Your task to perform on an android device: turn off data saver in the chrome app Image 0: 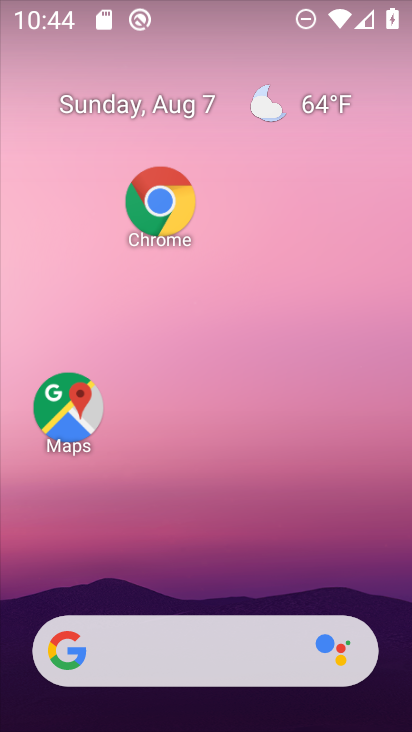
Step 0: drag from (200, 617) to (0, 347)
Your task to perform on an android device: turn off data saver in the chrome app Image 1: 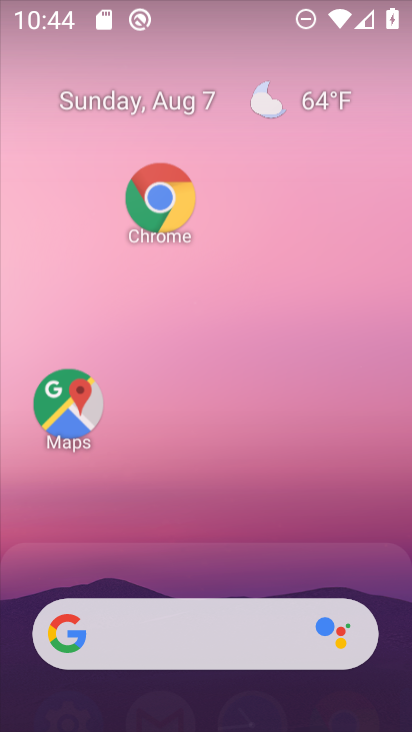
Step 1: click (265, 398)
Your task to perform on an android device: turn off data saver in the chrome app Image 2: 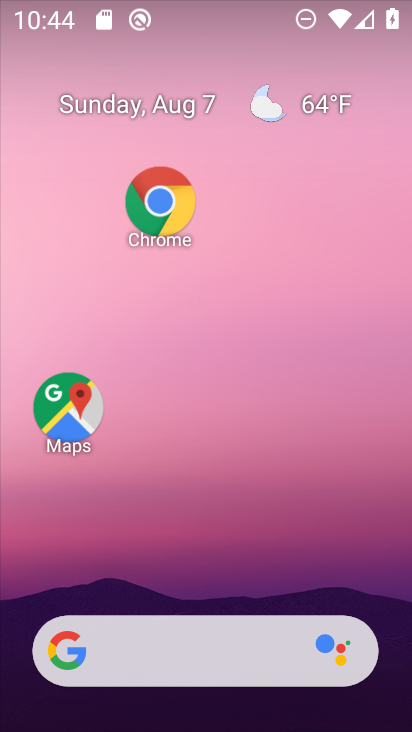
Step 2: drag from (208, 607) to (344, 659)
Your task to perform on an android device: turn off data saver in the chrome app Image 3: 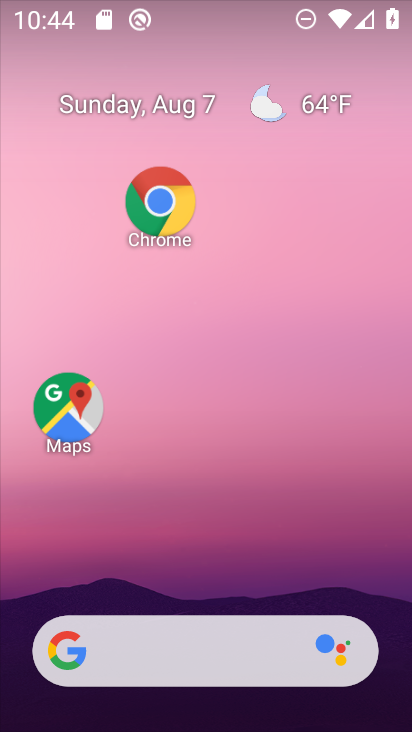
Step 3: drag from (215, 643) to (363, 15)
Your task to perform on an android device: turn off data saver in the chrome app Image 4: 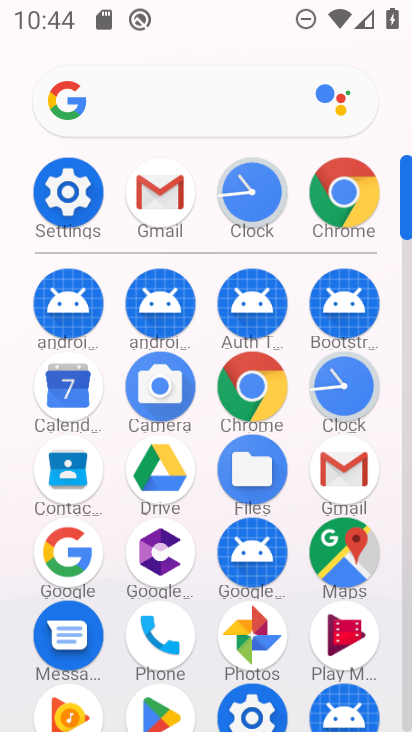
Step 4: click (333, 195)
Your task to perform on an android device: turn off data saver in the chrome app Image 5: 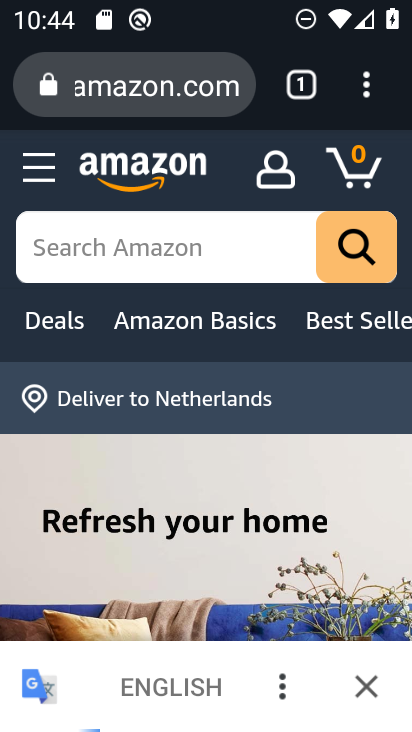
Step 5: click (368, 97)
Your task to perform on an android device: turn off data saver in the chrome app Image 6: 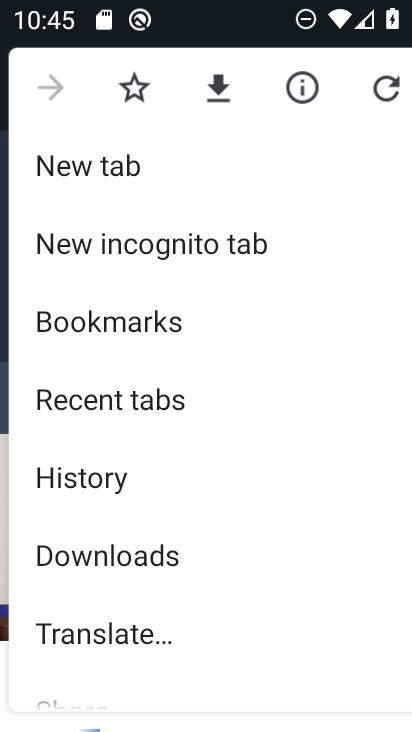
Step 6: drag from (319, 568) to (309, 16)
Your task to perform on an android device: turn off data saver in the chrome app Image 7: 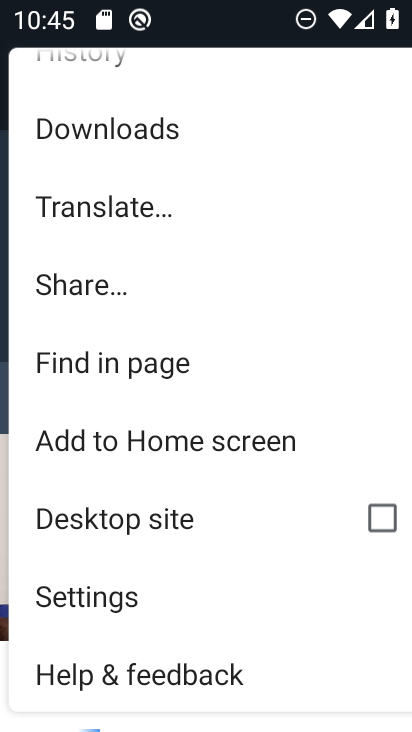
Step 7: click (150, 590)
Your task to perform on an android device: turn off data saver in the chrome app Image 8: 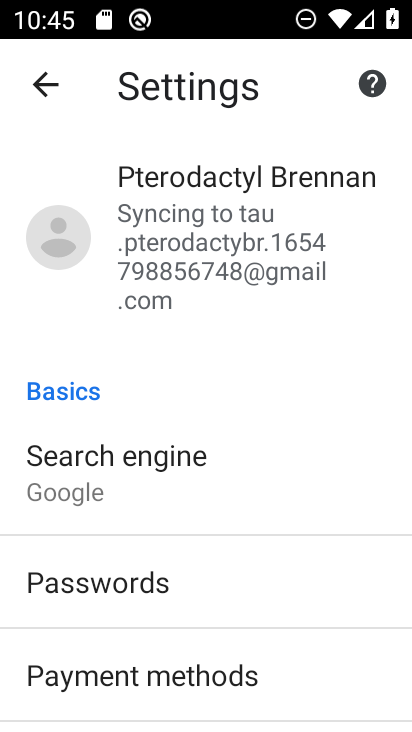
Step 8: drag from (159, 575) to (329, 4)
Your task to perform on an android device: turn off data saver in the chrome app Image 9: 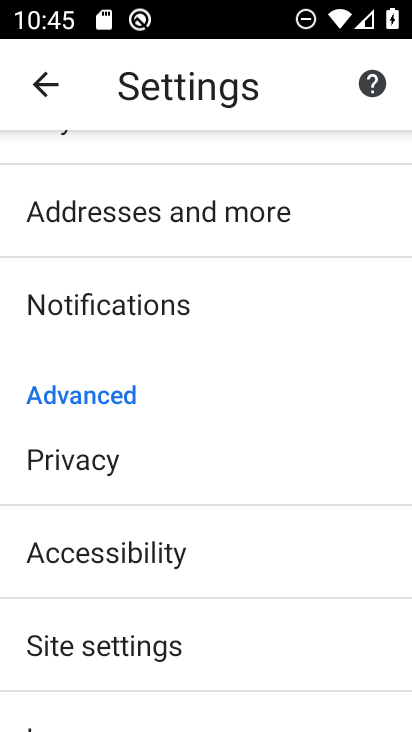
Step 9: drag from (173, 647) to (166, 6)
Your task to perform on an android device: turn off data saver in the chrome app Image 10: 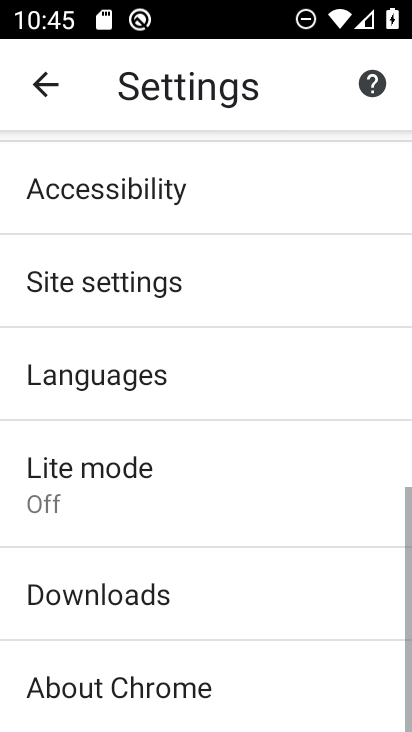
Step 10: click (110, 516)
Your task to perform on an android device: turn off data saver in the chrome app Image 11: 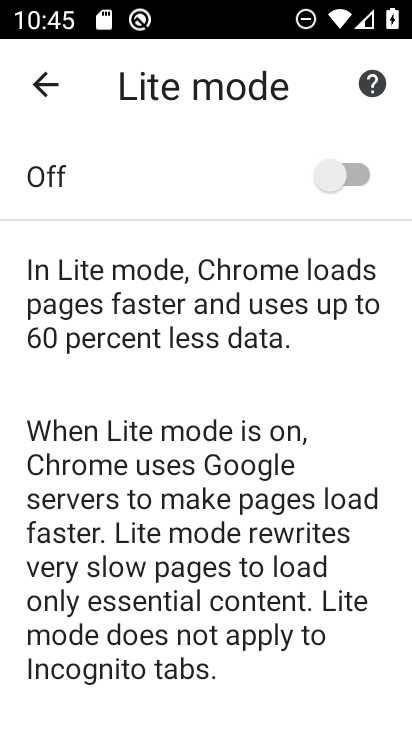
Step 11: task complete